Your task to perform on an android device: Show me the alarms in the clock app Image 0: 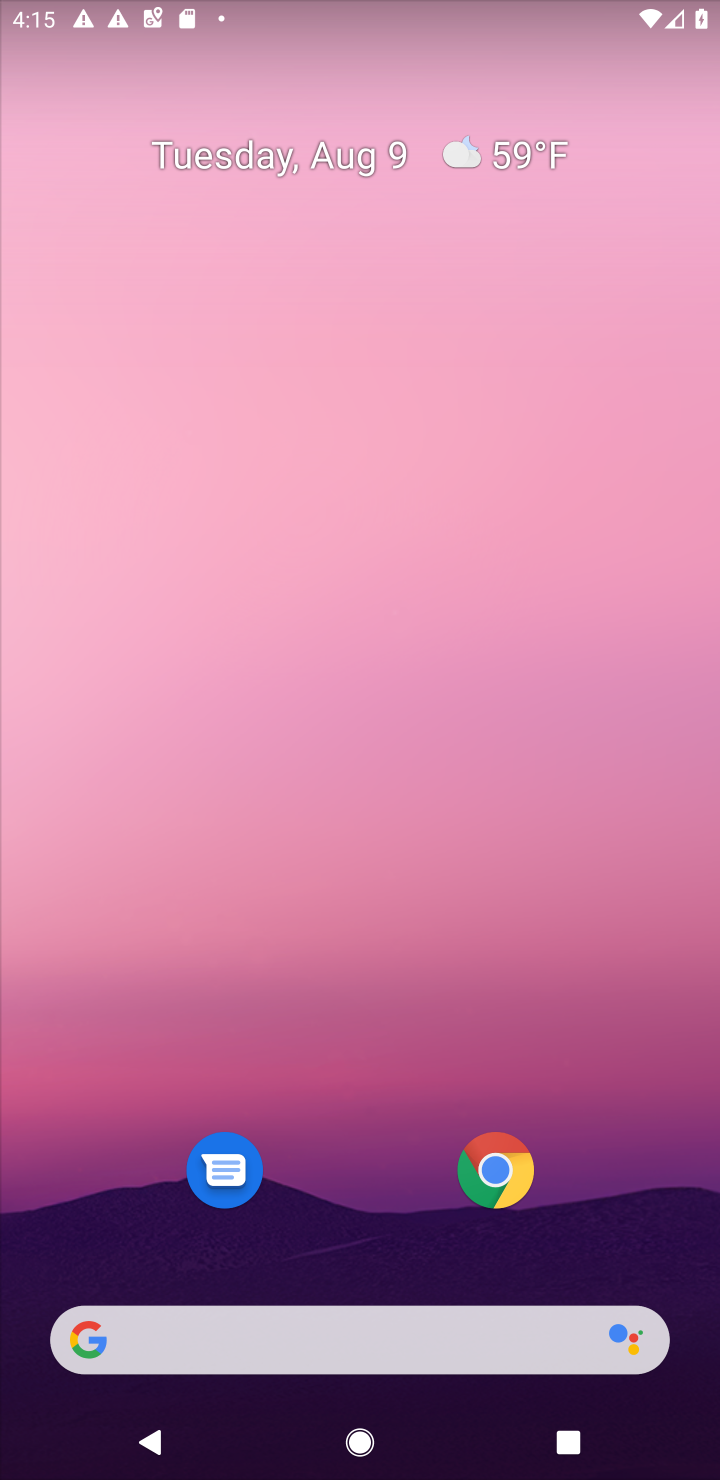
Step 0: press home button
Your task to perform on an android device: Show me the alarms in the clock app Image 1: 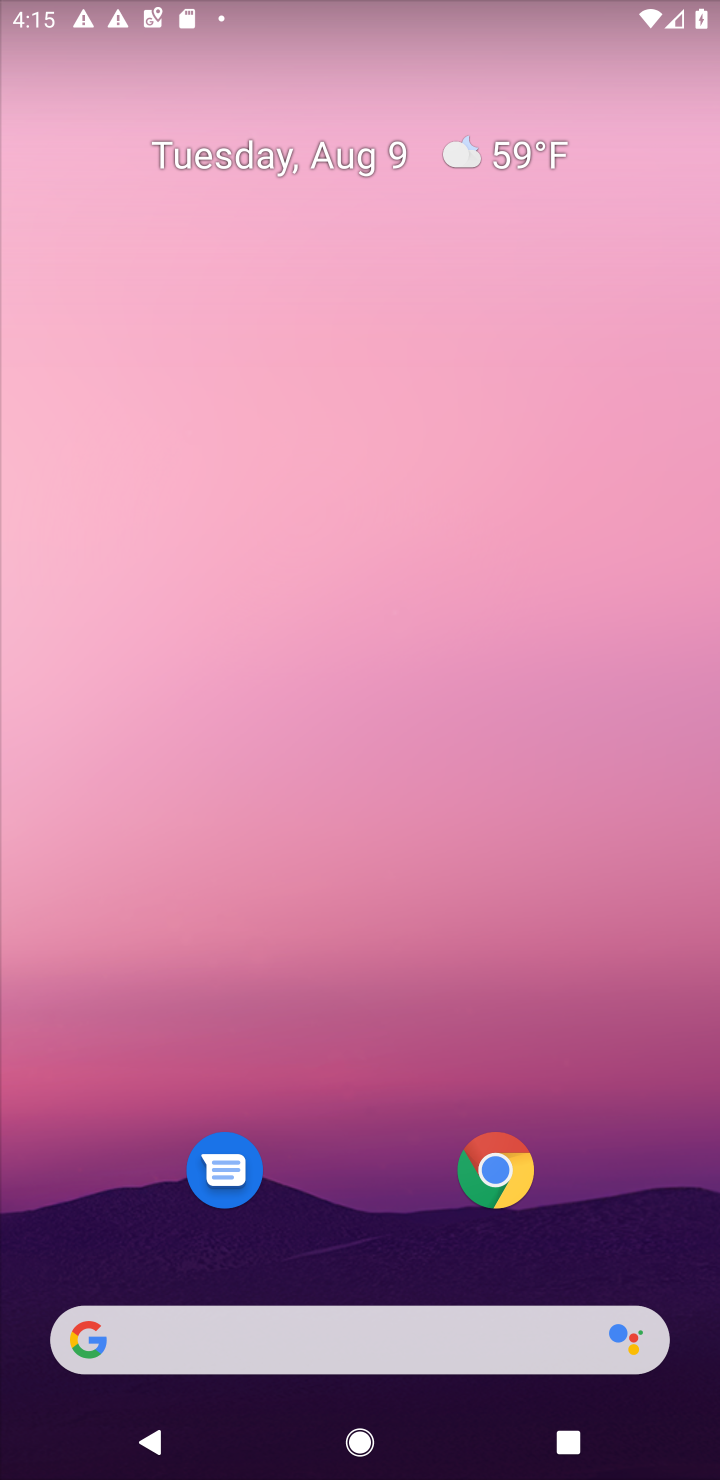
Step 1: drag from (215, 367) to (208, 97)
Your task to perform on an android device: Show me the alarms in the clock app Image 2: 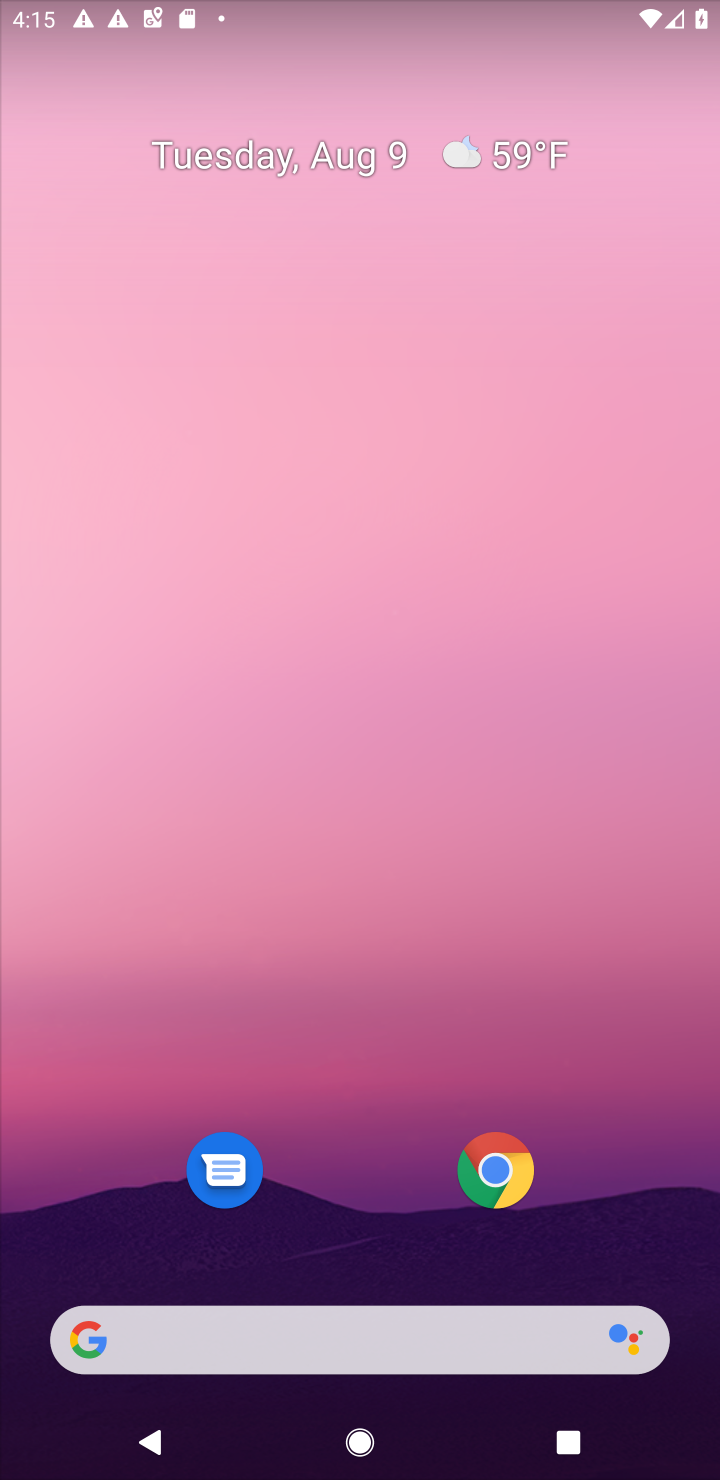
Step 2: drag from (290, 938) to (173, 3)
Your task to perform on an android device: Show me the alarms in the clock app Image 3: 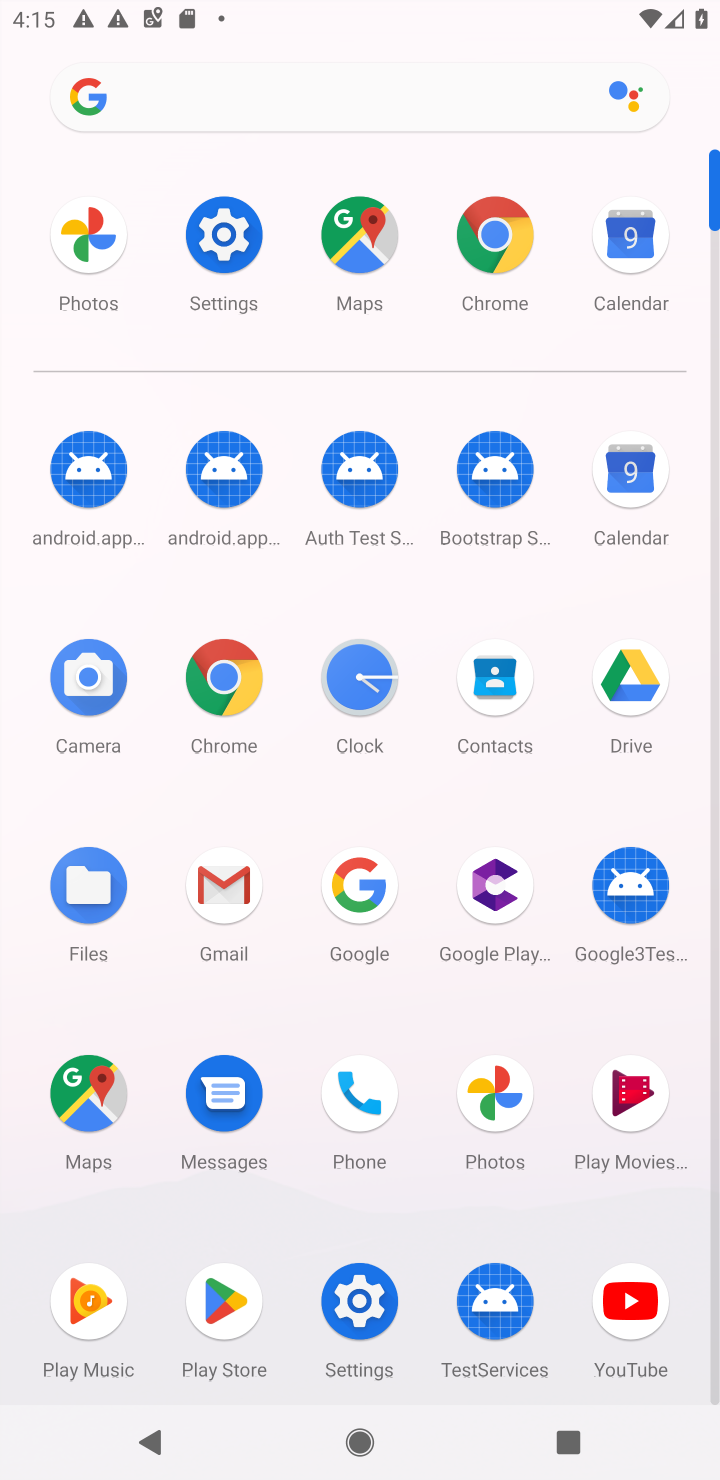
Step 3: click (343, 685)
Your task to perform on an android device: Show me the alarms in the clock app Image 4: 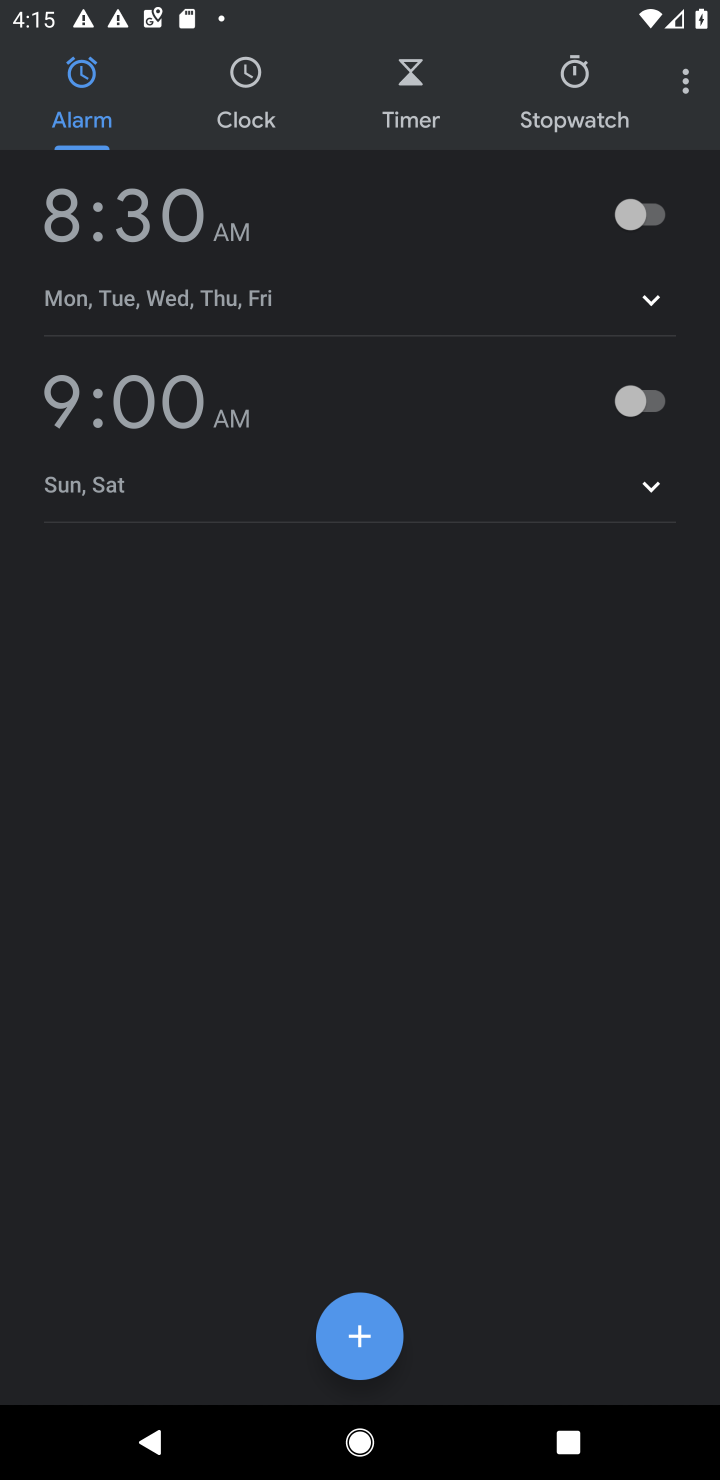
Step 4: task complete